Your task to perform on an android device: Open calendar and show me the first week of next month Image 0: 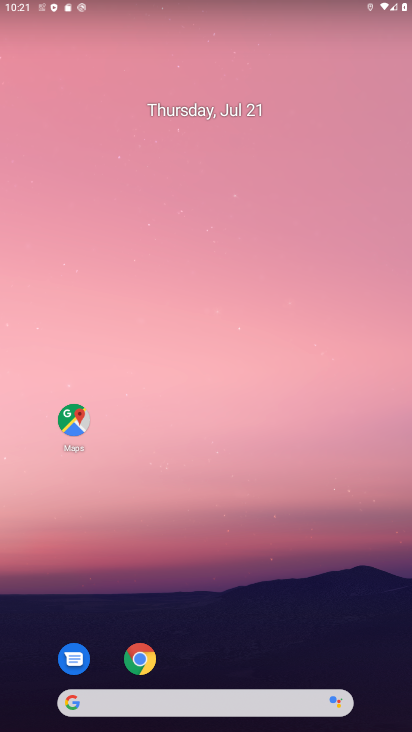
Step 0: drag from (235, 655) to (318, 35)
Your task to perform on an android device: Open calendar and show me the first week of next month Image 1: 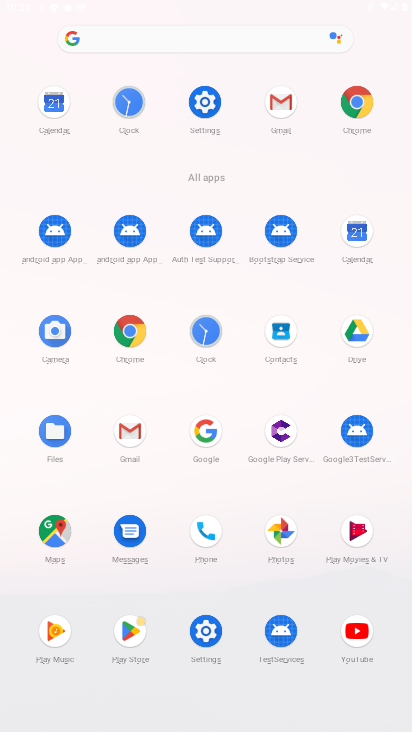
Step 1: click (355, 267)
Your task to perform on an android device: Open calendar and show me the first week of next month Image 2: 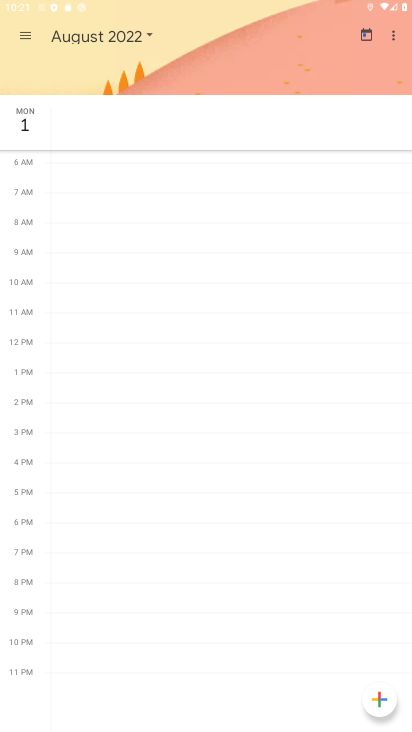
Step 2: click (22, 38)
Your task to perform on an android device: Open calendar and show me the first week of next month Image 3: 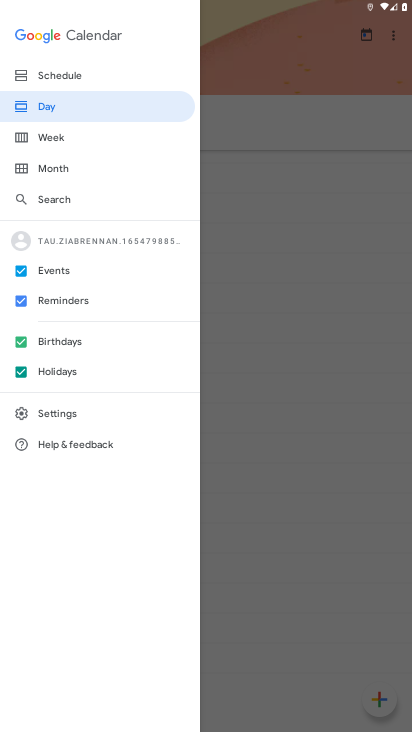
Step 3: click (52, 144)
Your task to perform on an android device: Open calendar and show me the first week of next month Image 4: 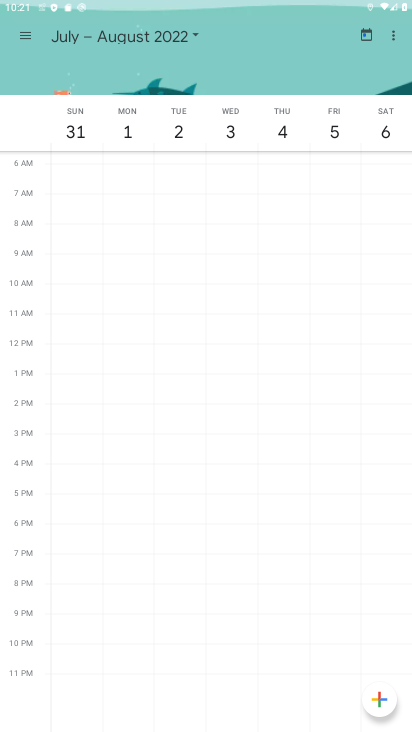
Step 4: task complete